Your task to perform on an android device: Go to Maps Image 0: 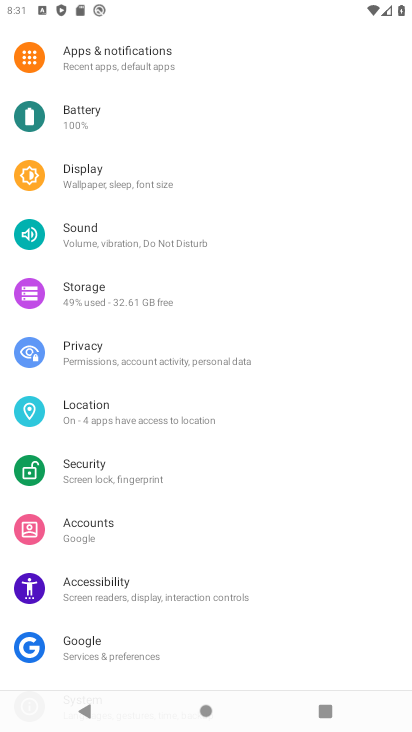
Step 0: press home button
Your task to perform on an android device: Go to Maps Image 1: 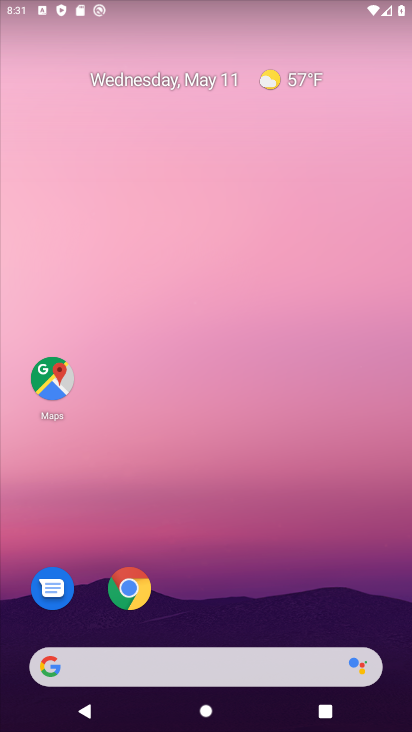
Step 1: click (40, 372)
Your task to perform on an android device: Go to Maps Image 2: 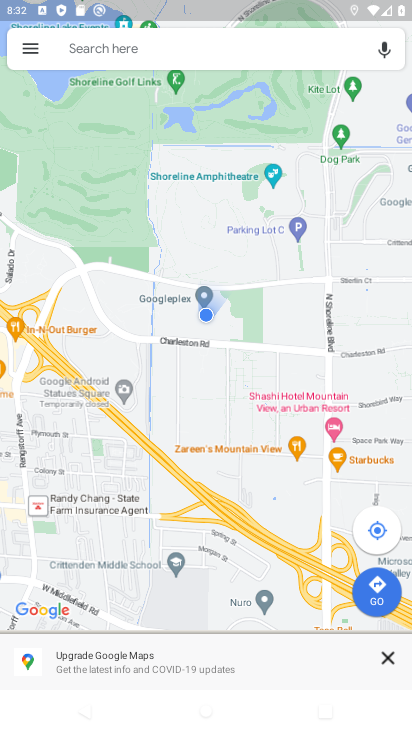
Step 2: task complete